Your task to perform on an android device: Go to settings Image 0: 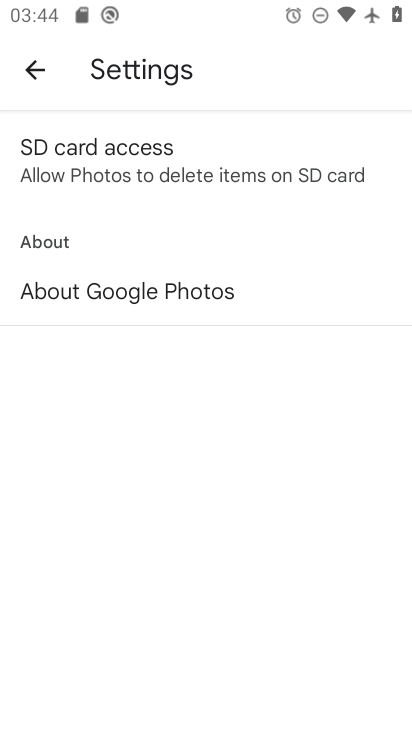
Step 0: press home button
Your task to perform on an android device: Go to settings Image 1: 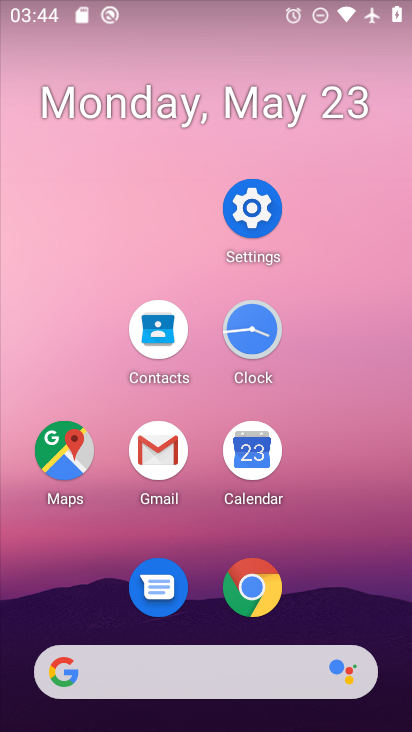
Step 1: click (257, 246)
Your task to perform on an android device: Go to settings Image 2: 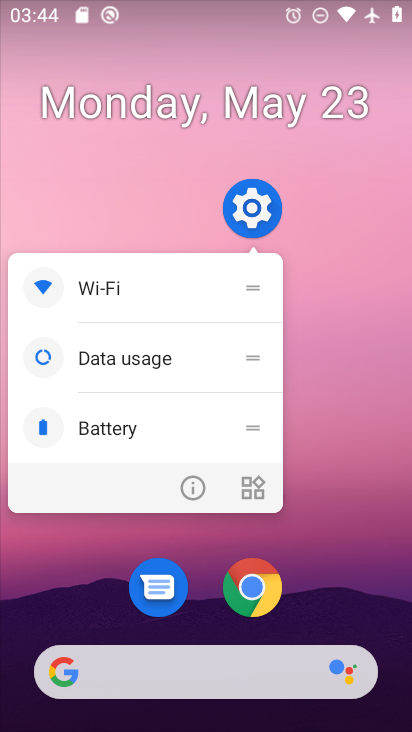
Step 2: click (264, 211)
Your task to perform on an android device: Go to settings Image 3: 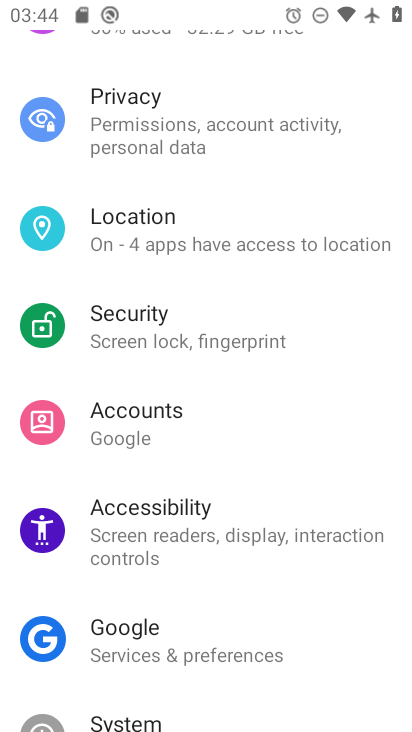
Step 3: task complete